Your task to perform on an android device: change the clock style Image 0: 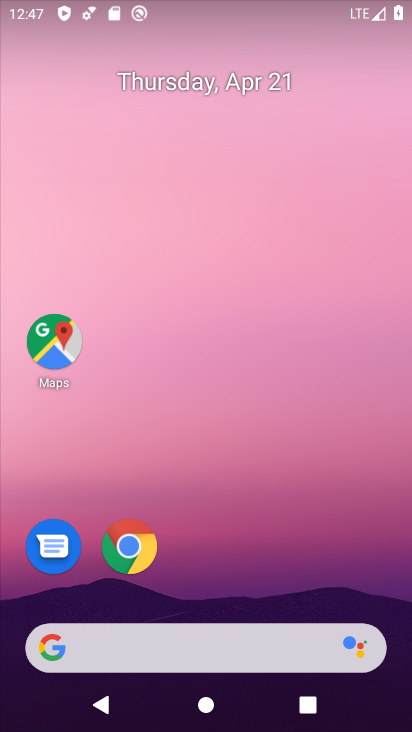
Step 0: drag from (238, 576) to (260, 89)
Your task to perform on an android device: change the clock style Image 1: 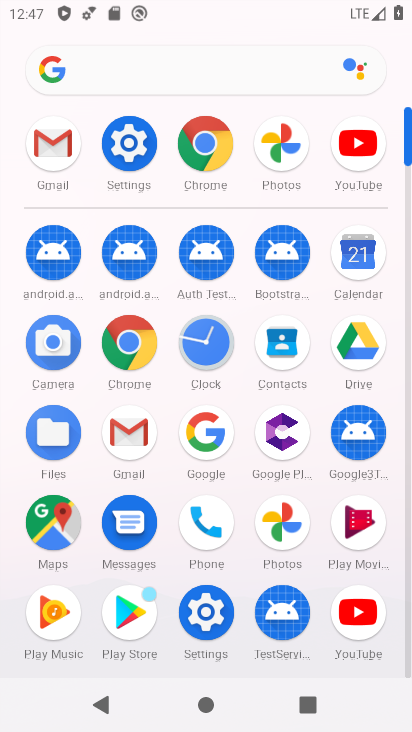
Step 1: click (203, 360)
Your task to perform on an android device: change the clock style Image 2: 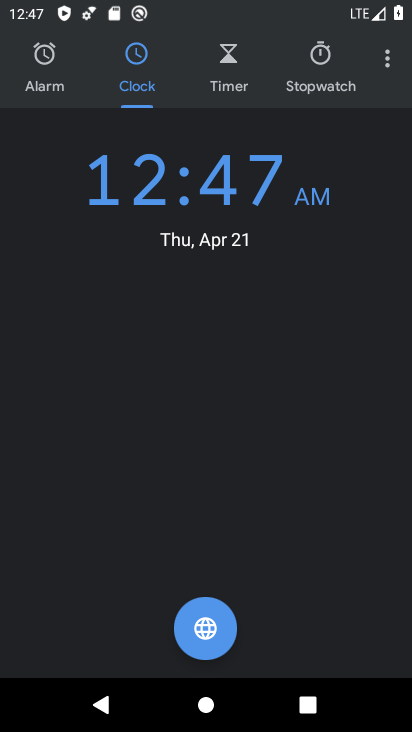
Step 2: click (389, 65)
Your task to perform on an android device: change the clock style Image 3: 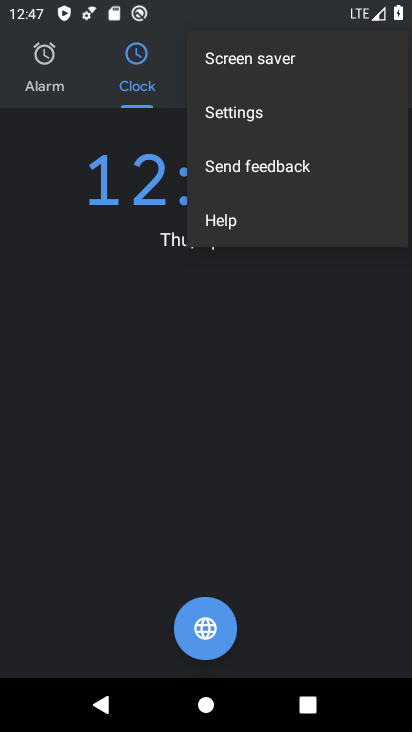
Step 3: click (311, 120)
Your task to perform on an android device: change the clock style Image 4: 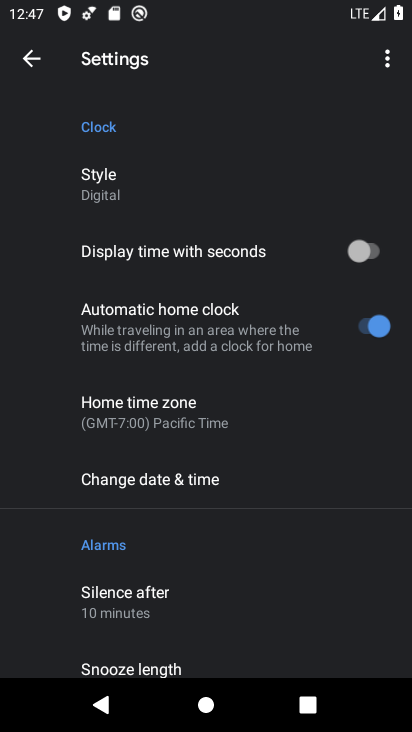
Step 4: click (148, 198)
Your task to perform on an android device: change the clock style Image 5: 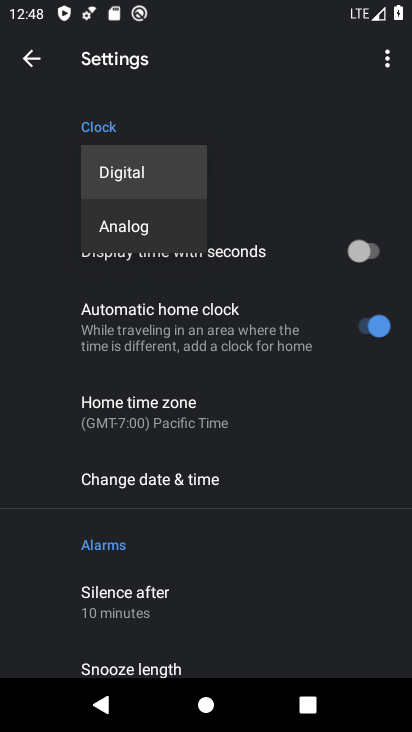
Step 5: click (156, 233)
Your task to perform on an android device: change the clock style Image 6: 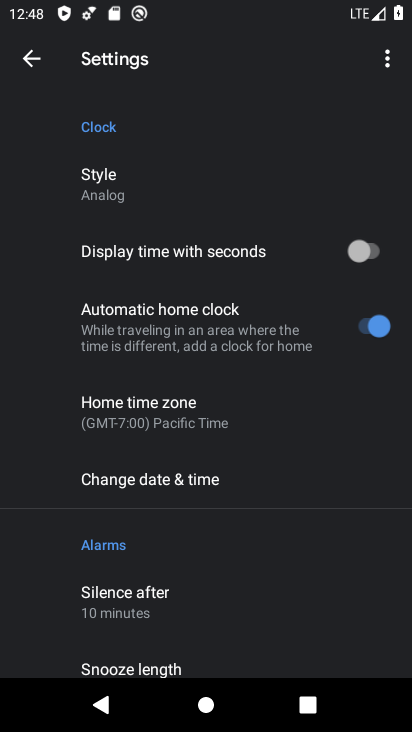
Step 6: task complete